Your task to perform on an android device: Go to Yahoo.com Image 0: 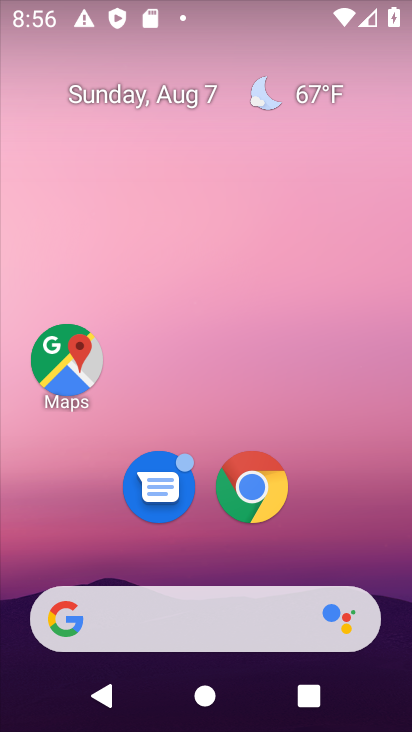
Step 0: drag from (22, 148) to (20, 36)
Your task to perform on an android device: Go to Yahoo.com Image 1: 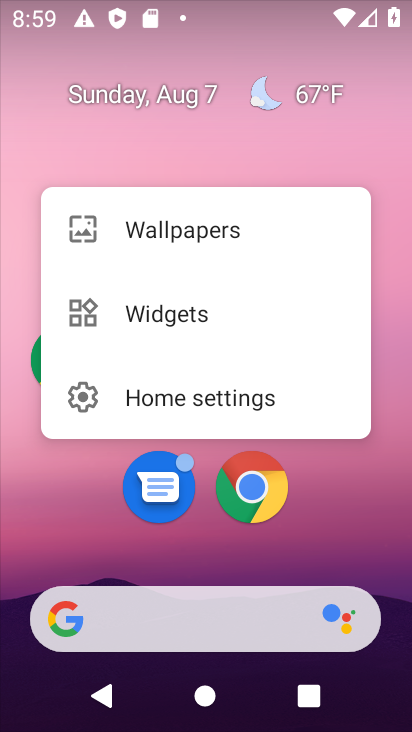
Step 1: click (248, 489)
Your task to perform on an android device: Go to Yahoo.com Image 2: 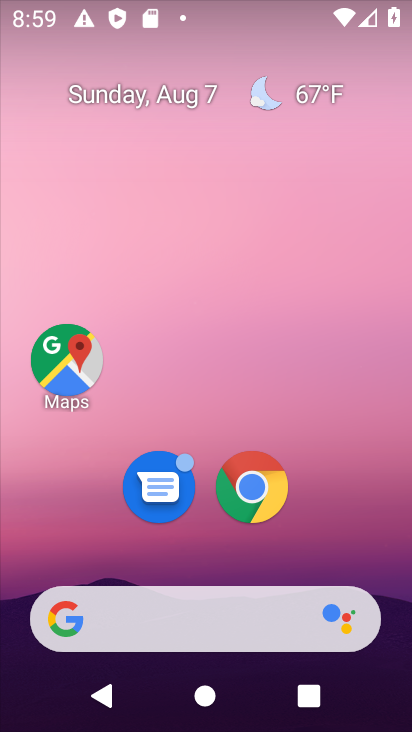
Step 2: click (248, 489)
Your task to perform on an android device: Go to Yahoo.com Image 3: 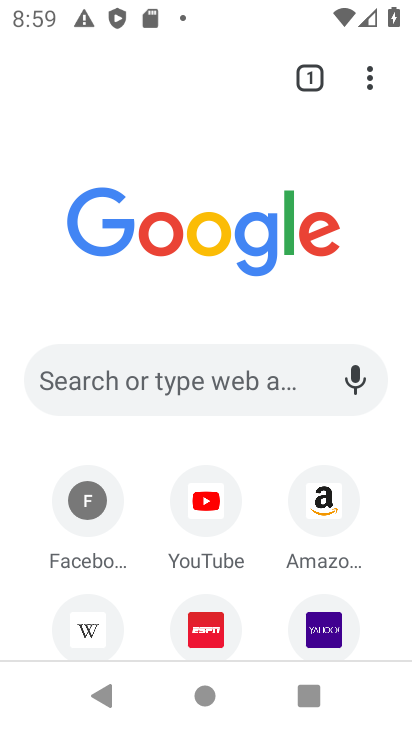
Step 3: click (172, 381)
Your task to perform on an android device: Go to Yahoo.com Image 4: 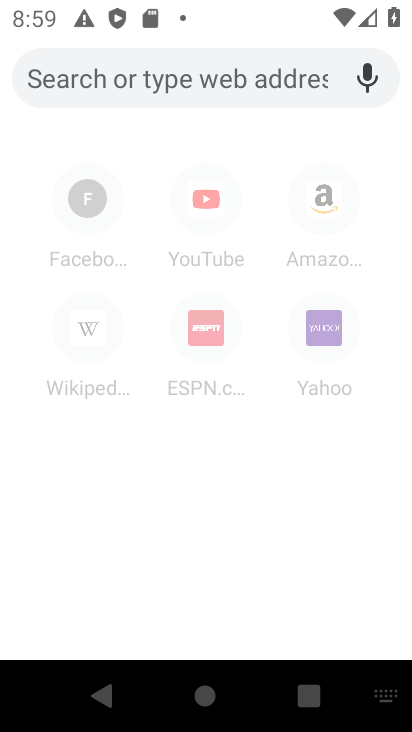
Step 4: type "Yahoo.com"
Your task to perform on an android device: Go to Yahoo.com Image 5: 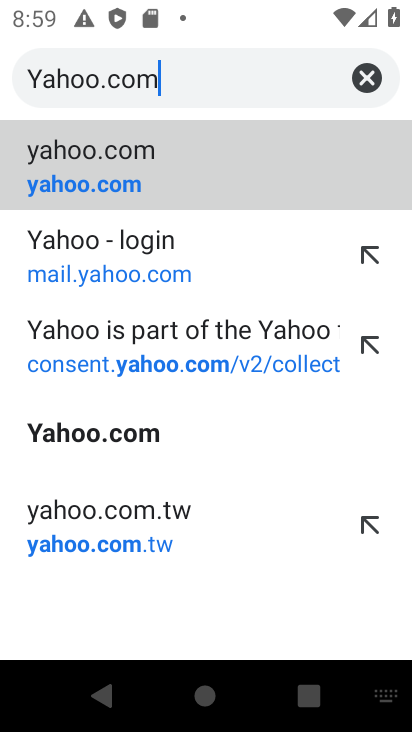
Step 5: click (151, 166)
Your task to perform on an android device: Go to Yahoo.com Image 6: 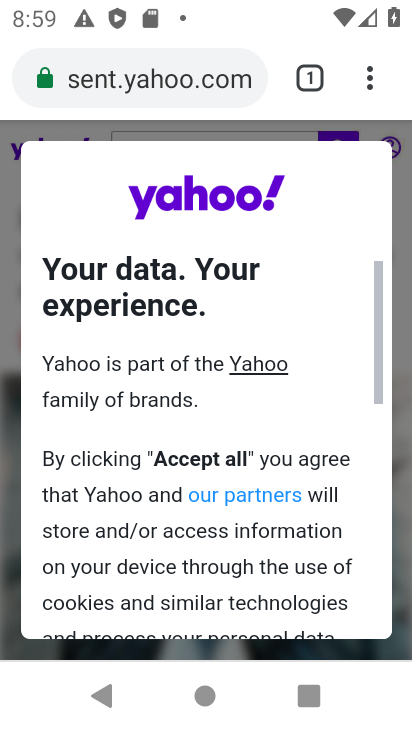
Step 6: task complete